Your task to perform on an android device: Open Google Chrome and click the shortcut for Amazon.com Image 0: 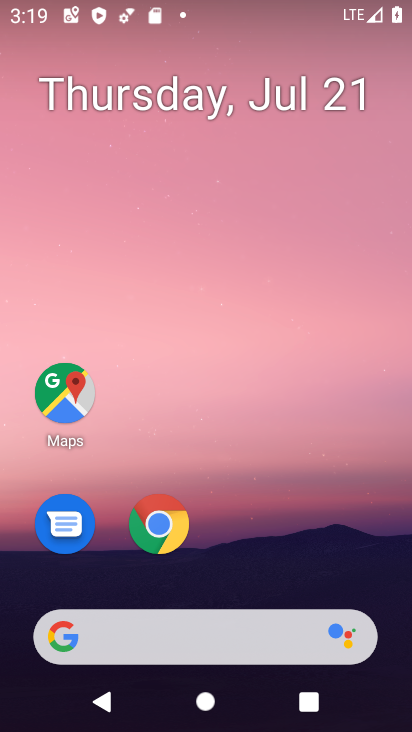
Step 0: click (172, 517)
Your task to perform on an android device: Open Google Chrome and click the shortcut for Amazon.com Image 1: 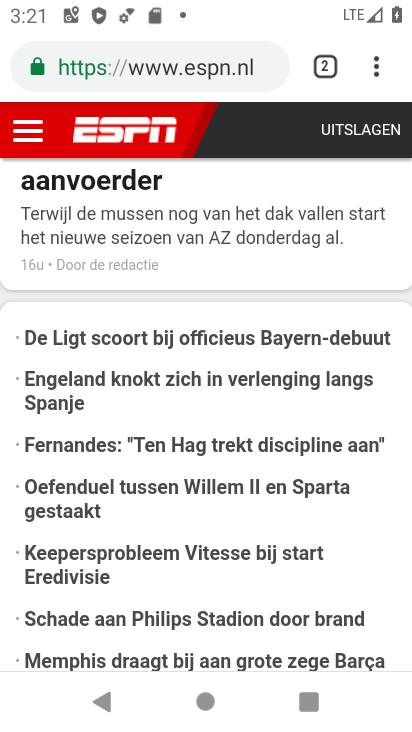
Step 1: task complete